Your task to perform on an android device: Open Chrome and go to the settings page Image 0: 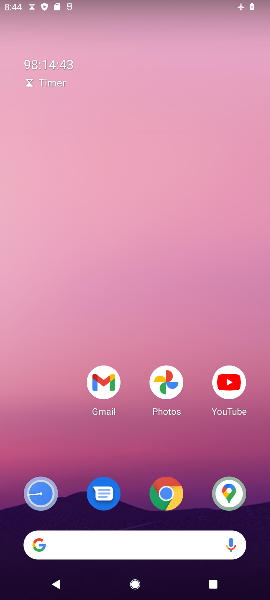
Step 0: drag from (132, 495) to (134, 173)
Your task to perform on an android device: Open Chrome and go to the settings page Image 1: 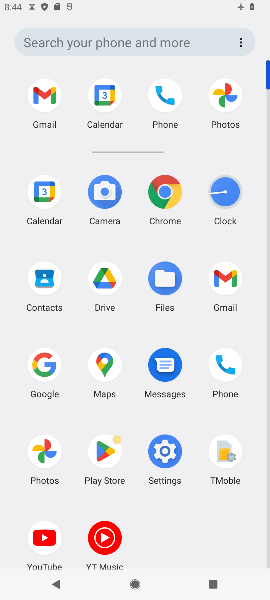
Step 1: click (167, 190)
Your task to perform on an android device: Open Chrome and go to the settings page Image 2: 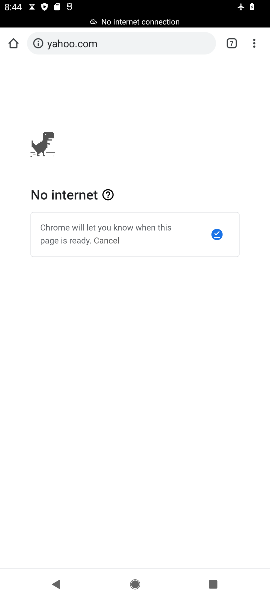
Step 2: click (257, 37)
Your task to perform on an android device: Open Chrome and go to the settings page Image 3: 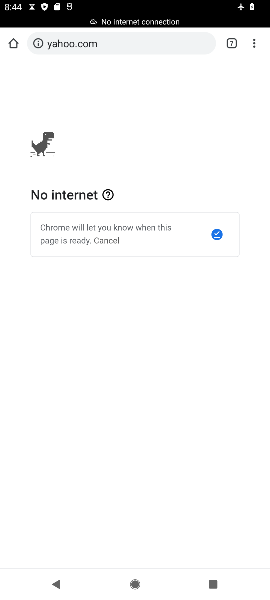
Step 3: click (251, 36)
Your task to perform on an android device: Open Chrome and go to the settings page Image 4: 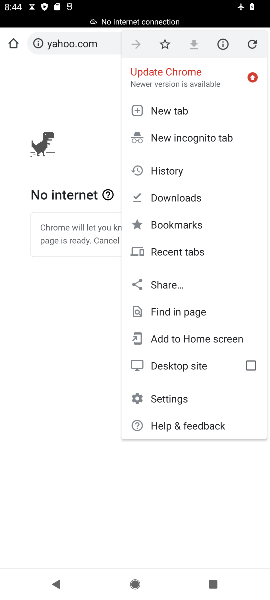
Step 4: click (168, 399)
Your task to perform on an android device: Open Chrome and go to the settings page Image 5: 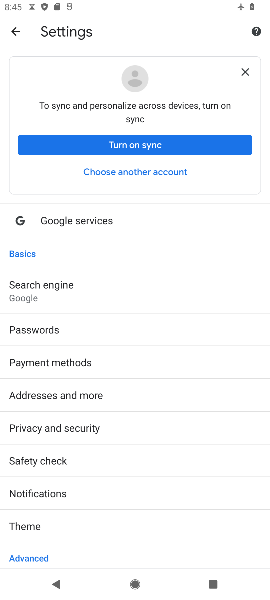
Step 5: task complete